Your task to perform on an android device: Go to calendar. Show me events next week Image 0: 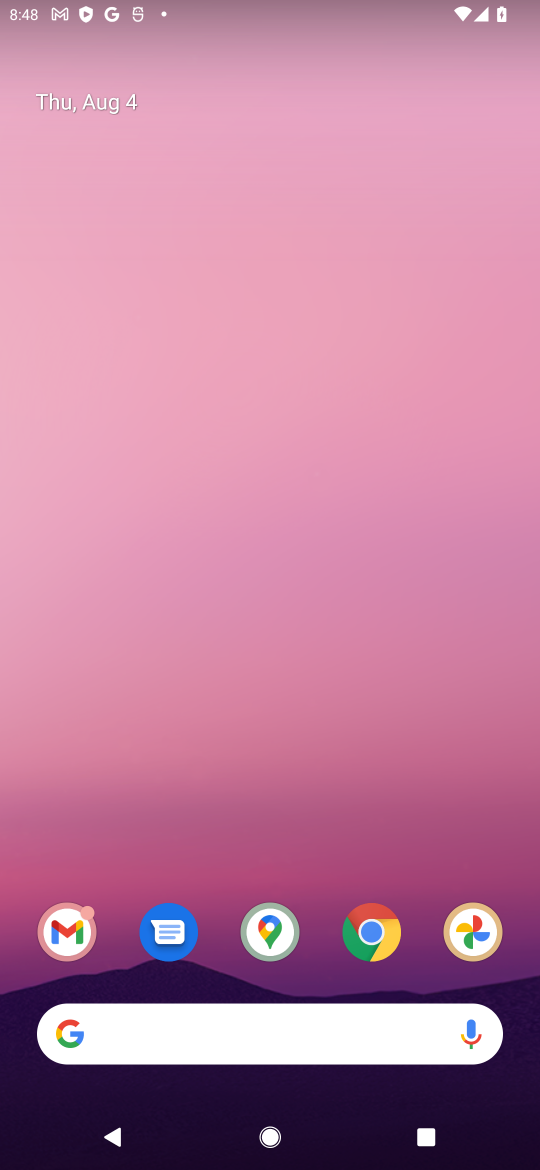
Step 0: drag from (328, 349) to (351, 266)
Your task to perform on an android device: Go to calendar. Show me events next week Image 1: 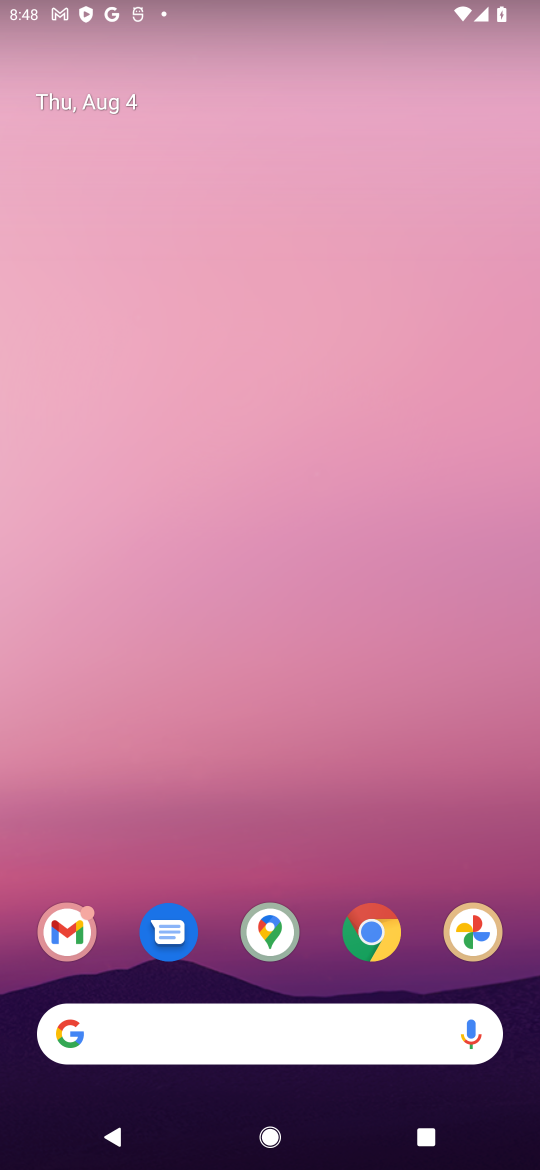
Step 1: drag from (209, 865) to (318, 131)
Your task to perform on an android device: Go to calendar. Show me events next week Image 2: 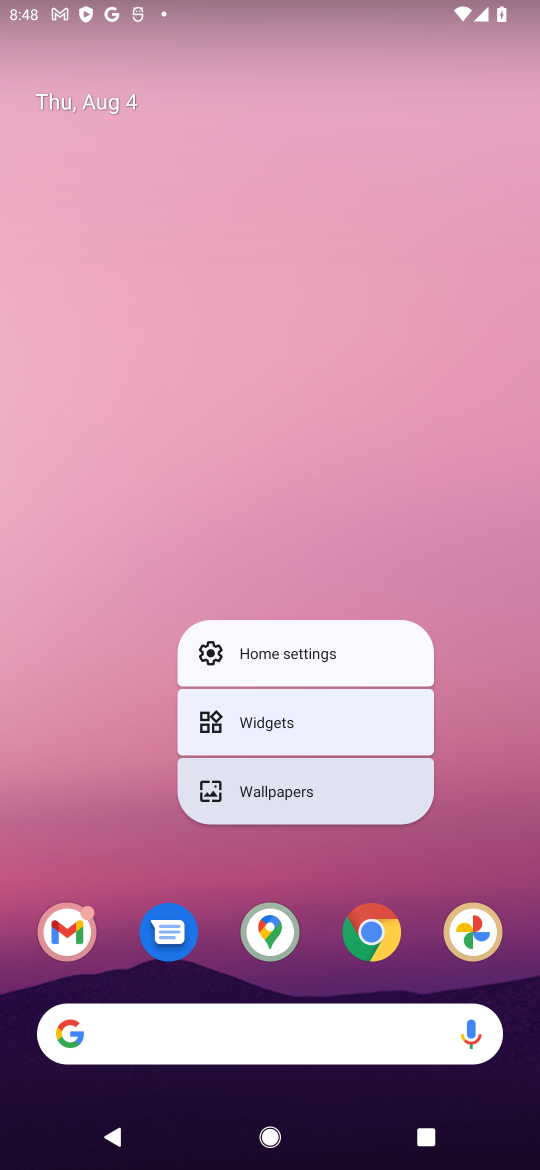
Step 2: click (307, 964)
Your task to perform on an android device: Go to calendar. Show me events next week Image 3: 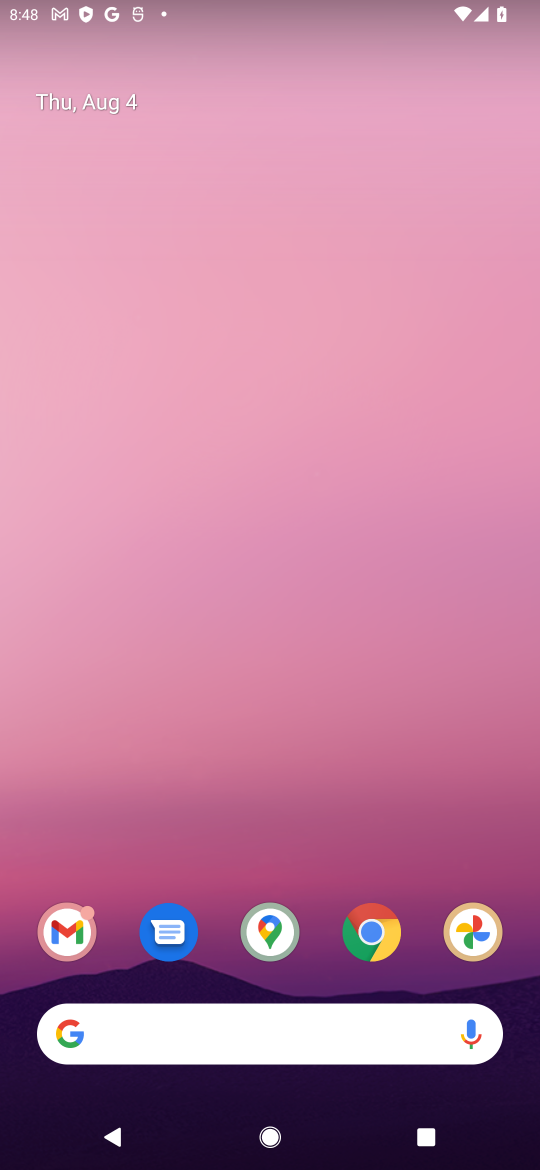
Step 3: drag from (307, 944) to (403, 15)
Your task to perform on an android device: Go to calendar. Show me events next week Image 4: 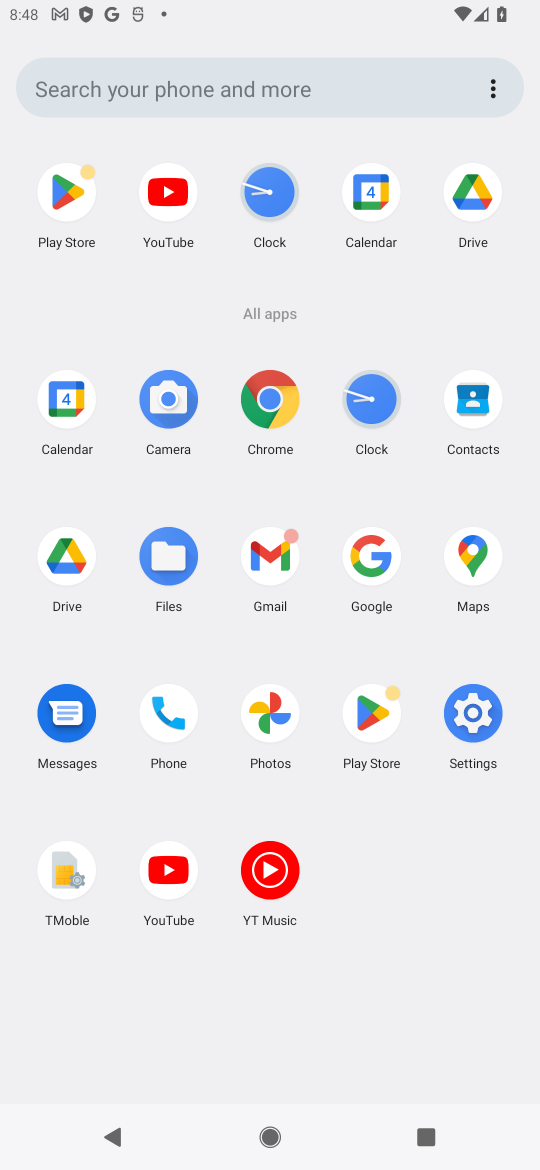
Step 4: click (63, 417)
Your task to perform on an android device: Go to calendar. Show me events next week Image 5: 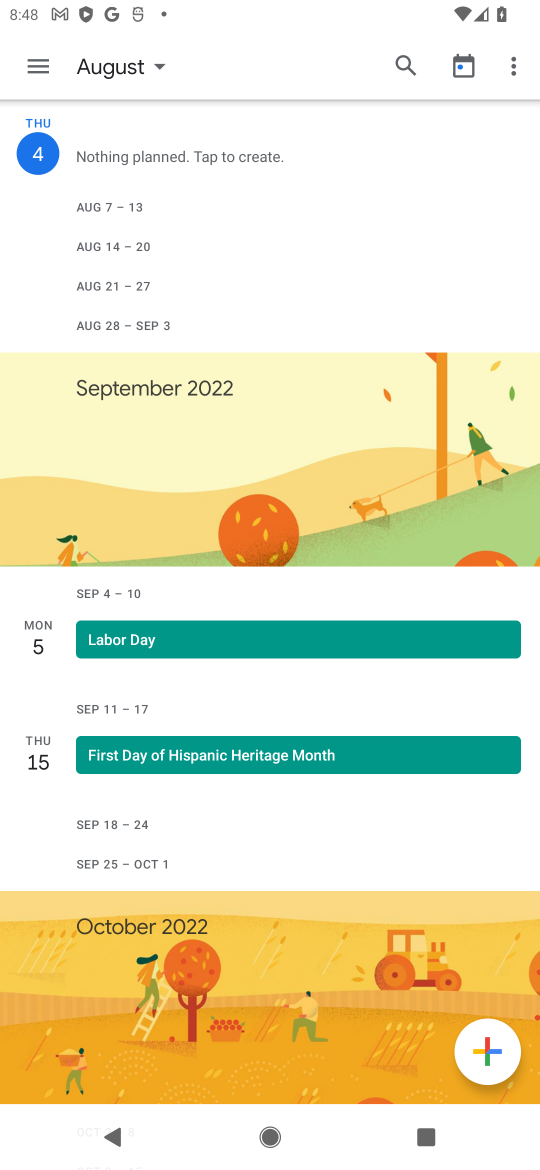
Step 5: click (131, 67)
Your task to perform on an android device: Go to calendar. Show me events next week Image 6: 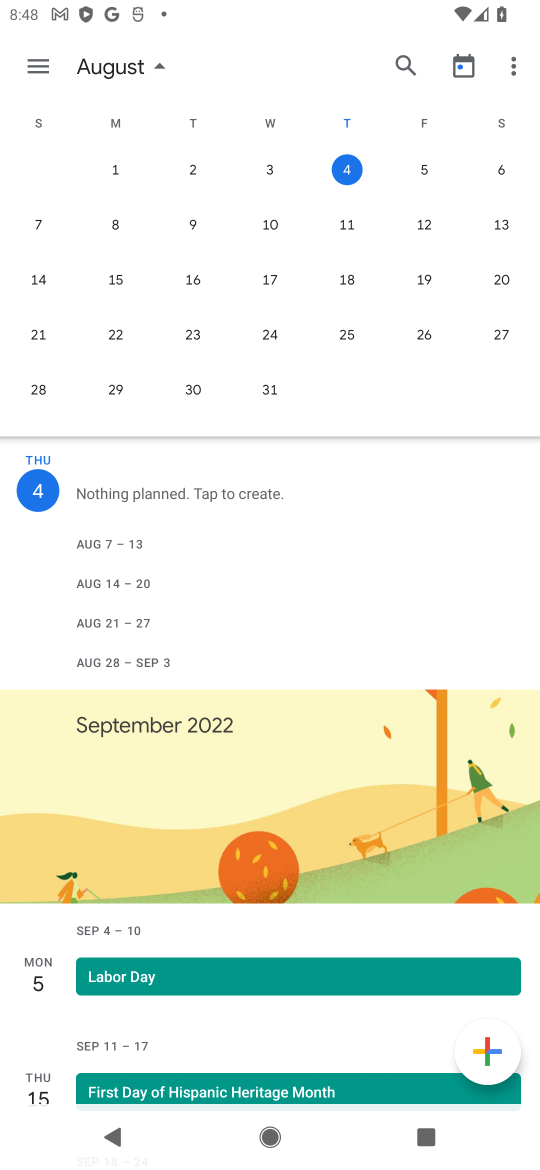
Step 6: click (34, 63)
Your task to perform on an android device: Go to calendar. Show me events next week Image 7: 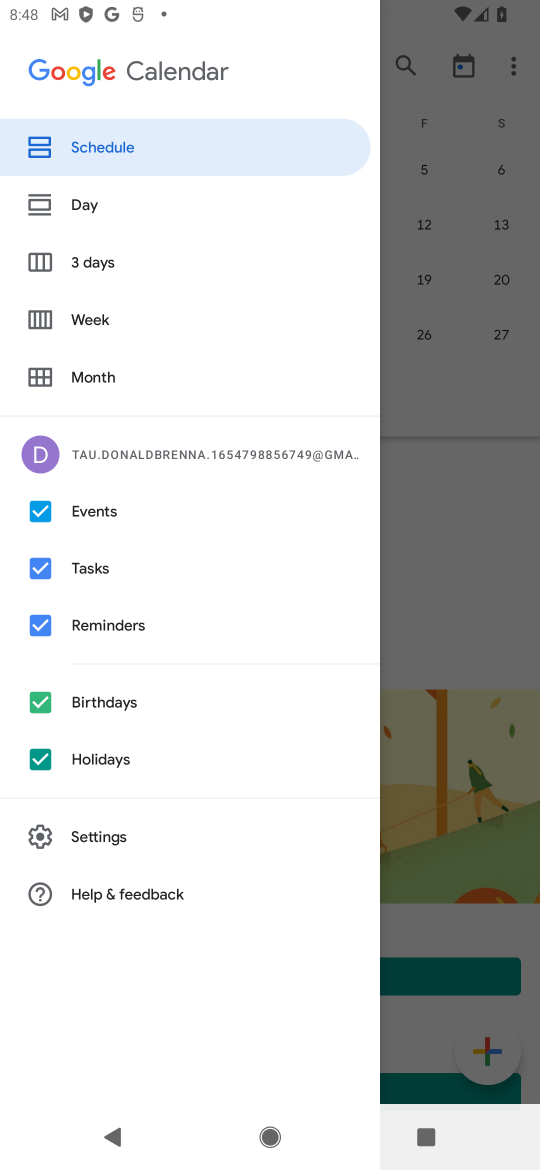
Step 7: click (97, 325)
Your task to perform on an android device: Go to calendar. Show me events next week Image 8: 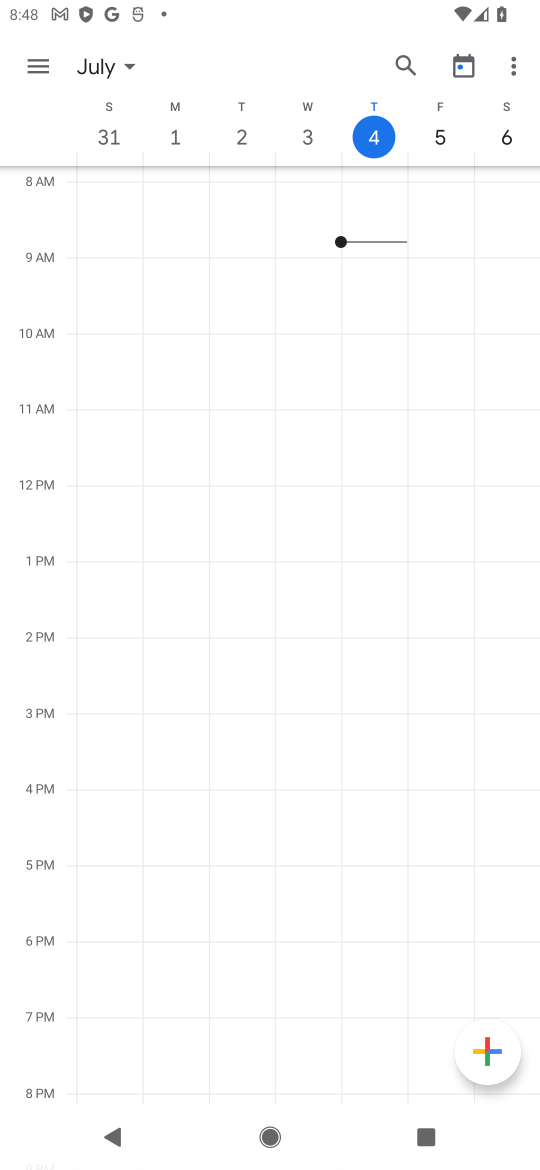
Step 8: click (115, 67)
Your task to perform on an android device: Go to calendar. Show me events next week Image 9: 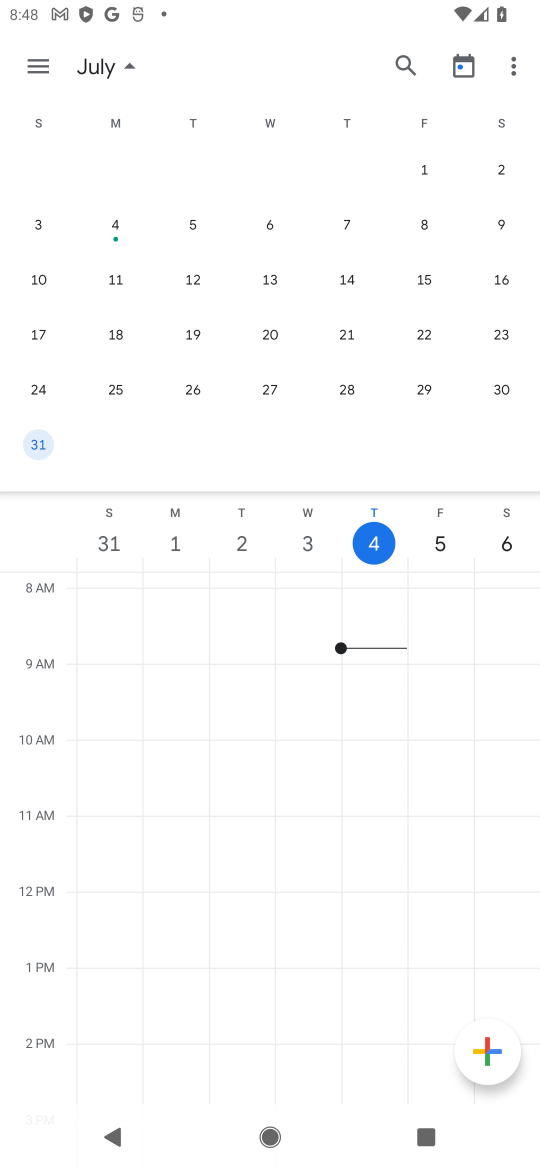
Step 9: click (126, 240)
Your task to perform on an android device: Go to calendar. Show me events next week Image 10: 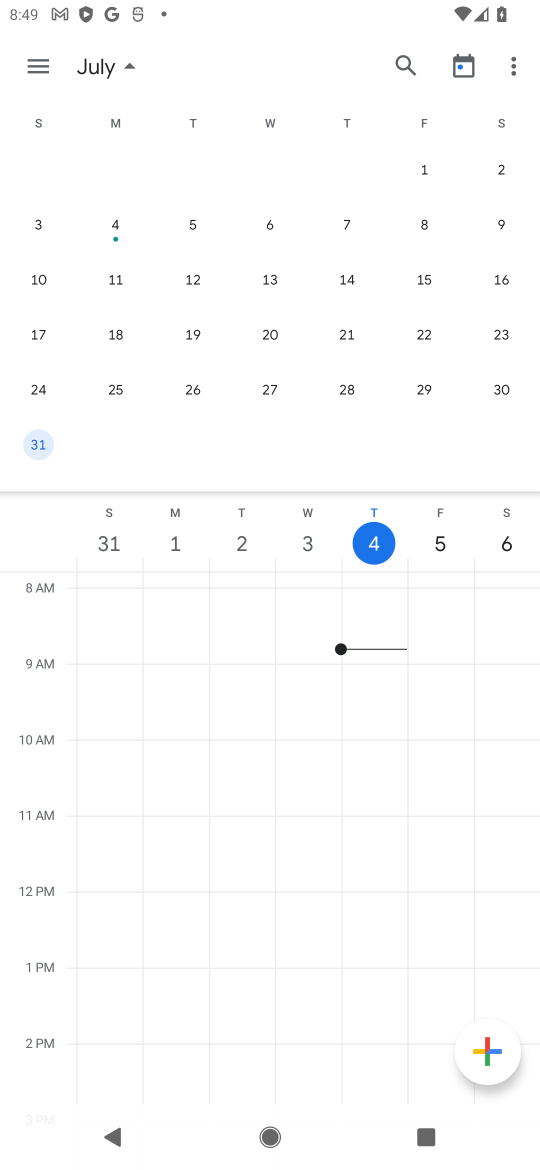
Step 10: drag from (457, 299) to (46, 244)
Your task to perform on an android device: Go to calendar. Show me events next week Image 11: 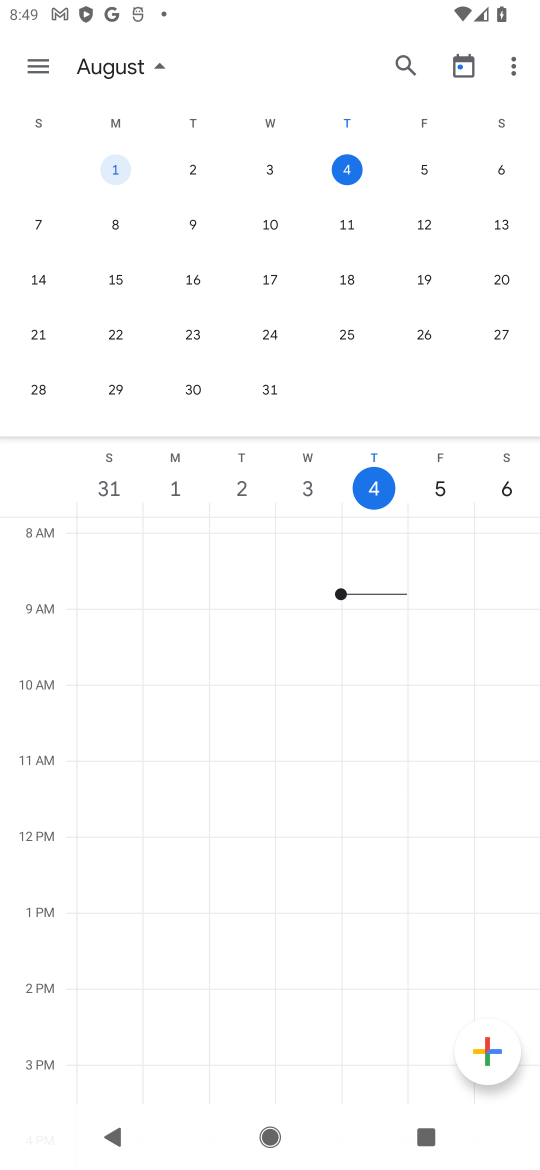
Step 11: click (32, 216)
Your task to perform on an android device: Go to calendar. Show me events next week Image 12: 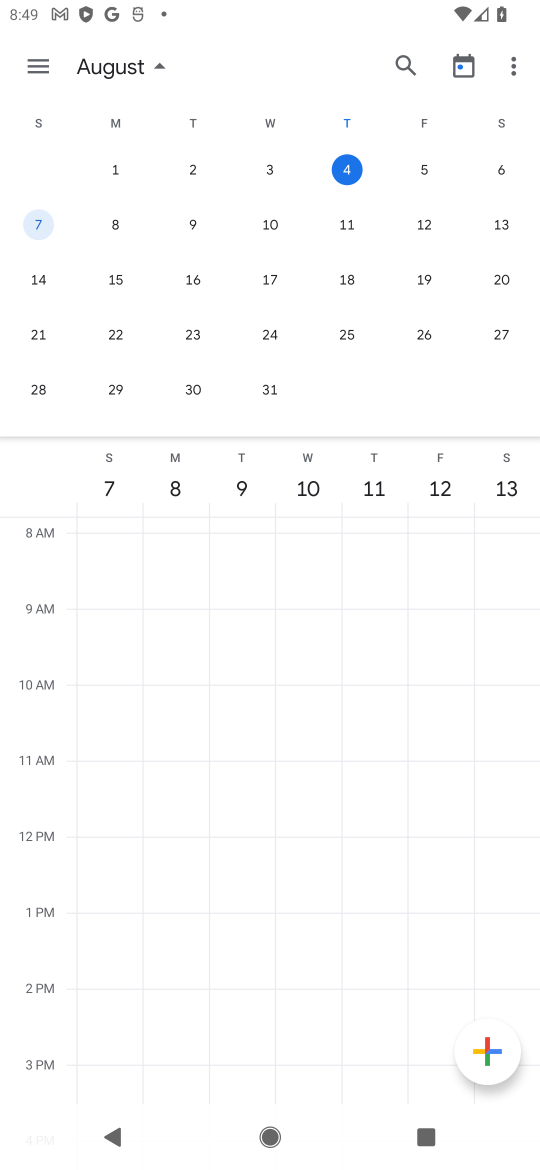
Step 12: task complete